Your task to perform on an android device: uninstall "Google Calendar" Image 0: 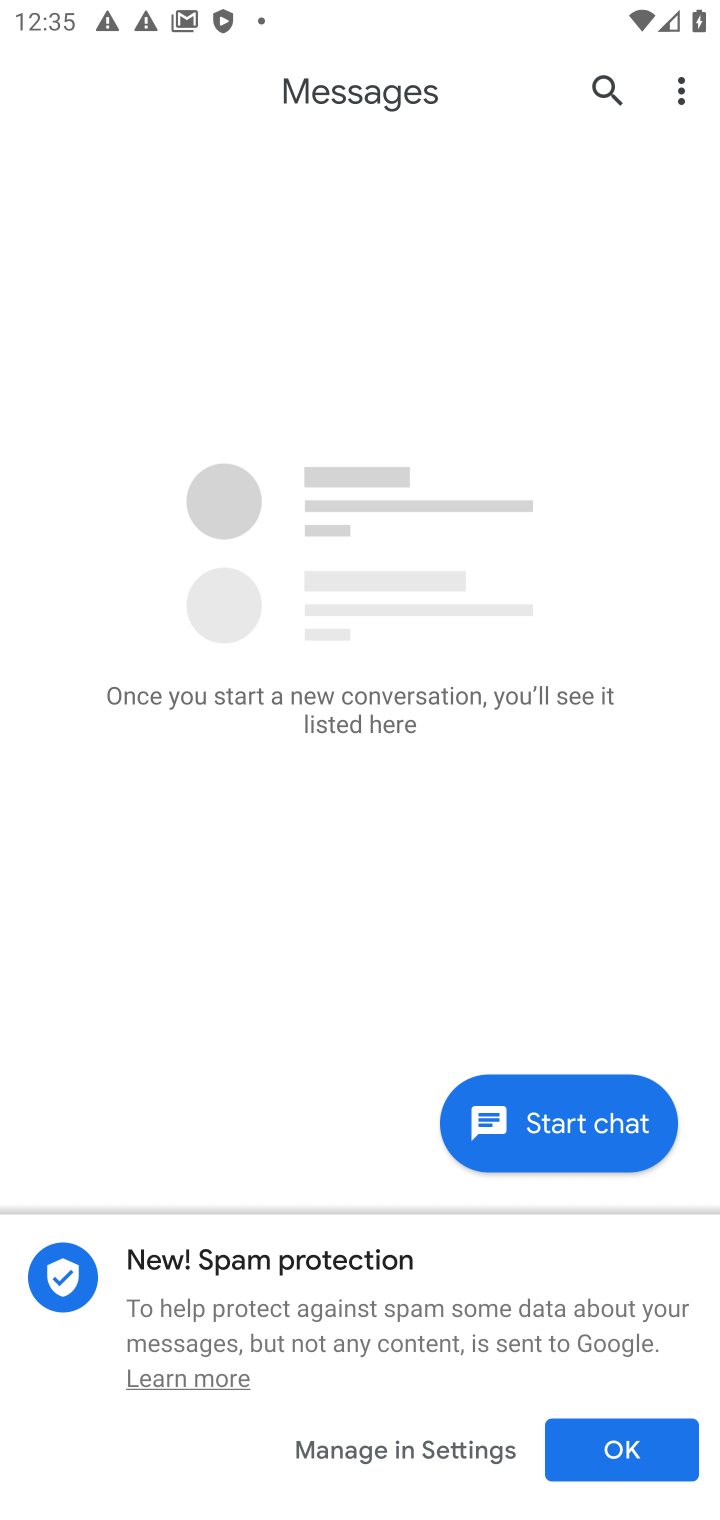
Step 0: press home button
Your task to perform on an android device: uninstall "Google Calendar" Image 1: 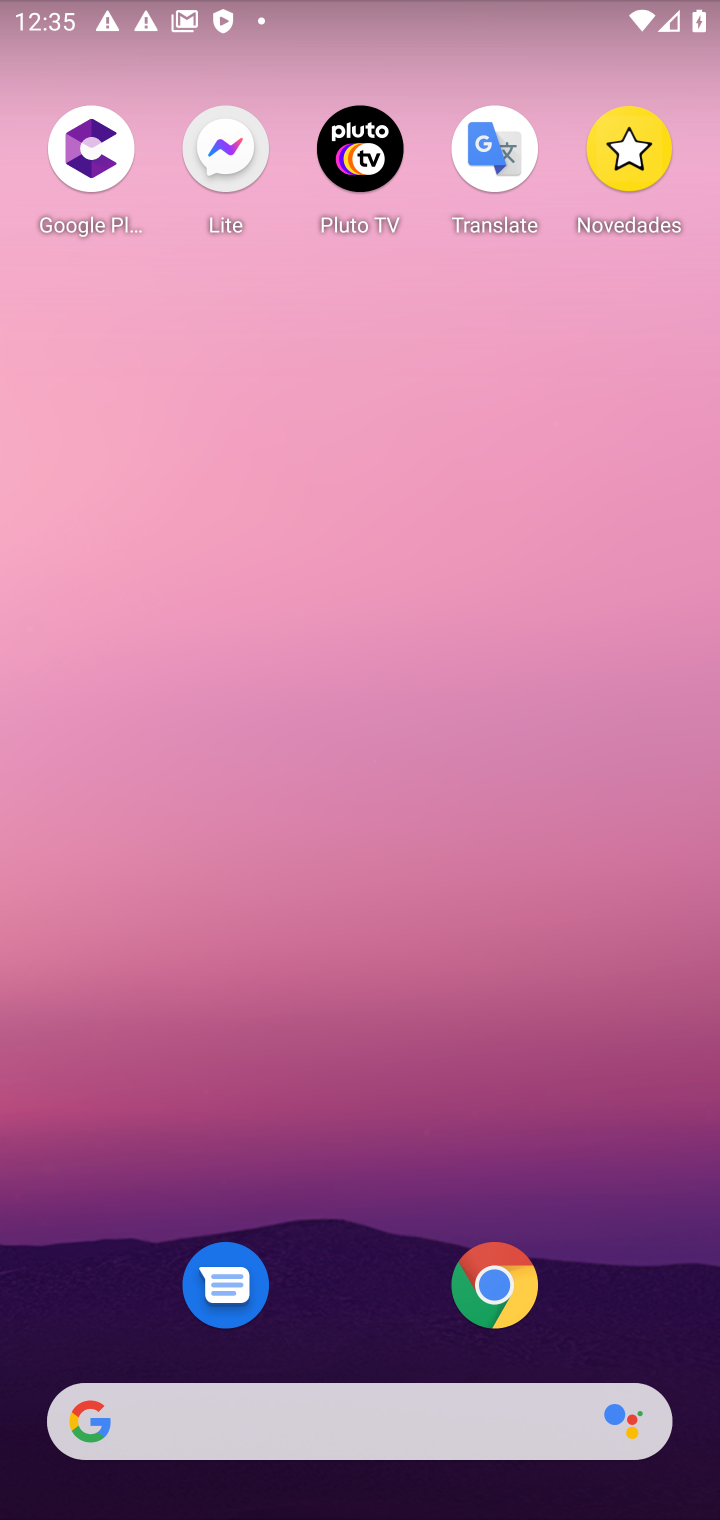
Step 1: drag from (649, 1240) to (604, 391)
Your task to perform on an android device: uninstall "Google Calendar" Image 2: 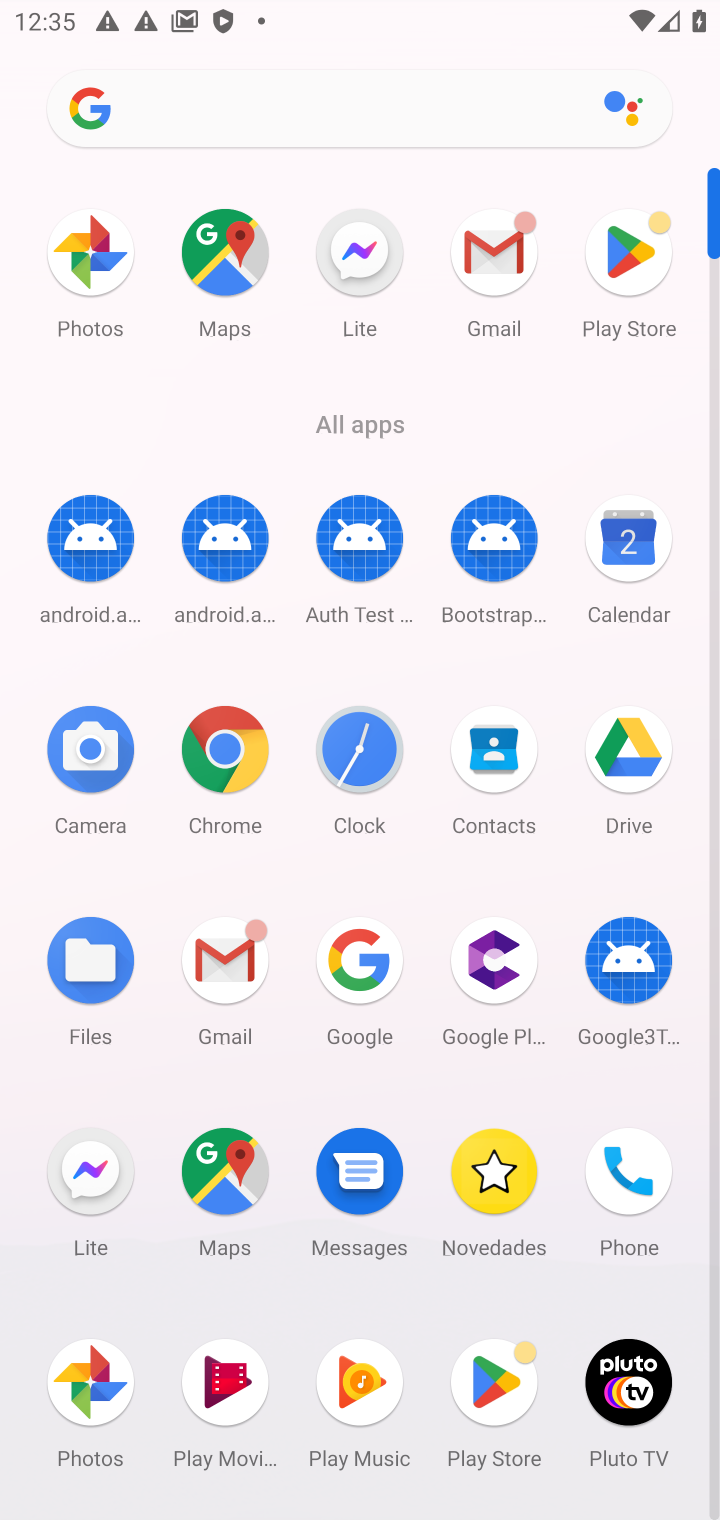
Step 2: click (480, 1367)
Your task to perform on an android device: uninstall "Google Calendar" Image 3: 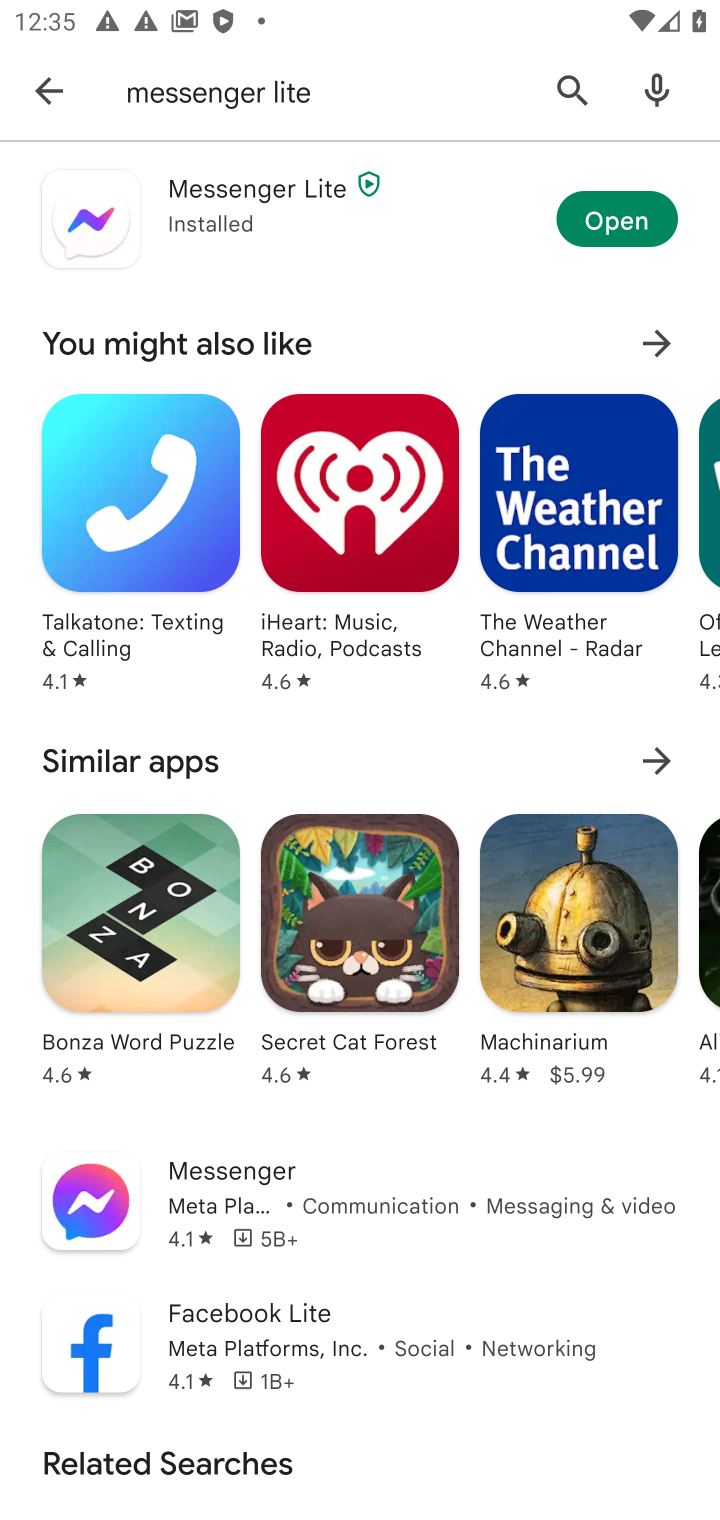
Step 3: click (415, 138)
Your task to perform on an android device: uninstall "Google Calendar" Image 4: 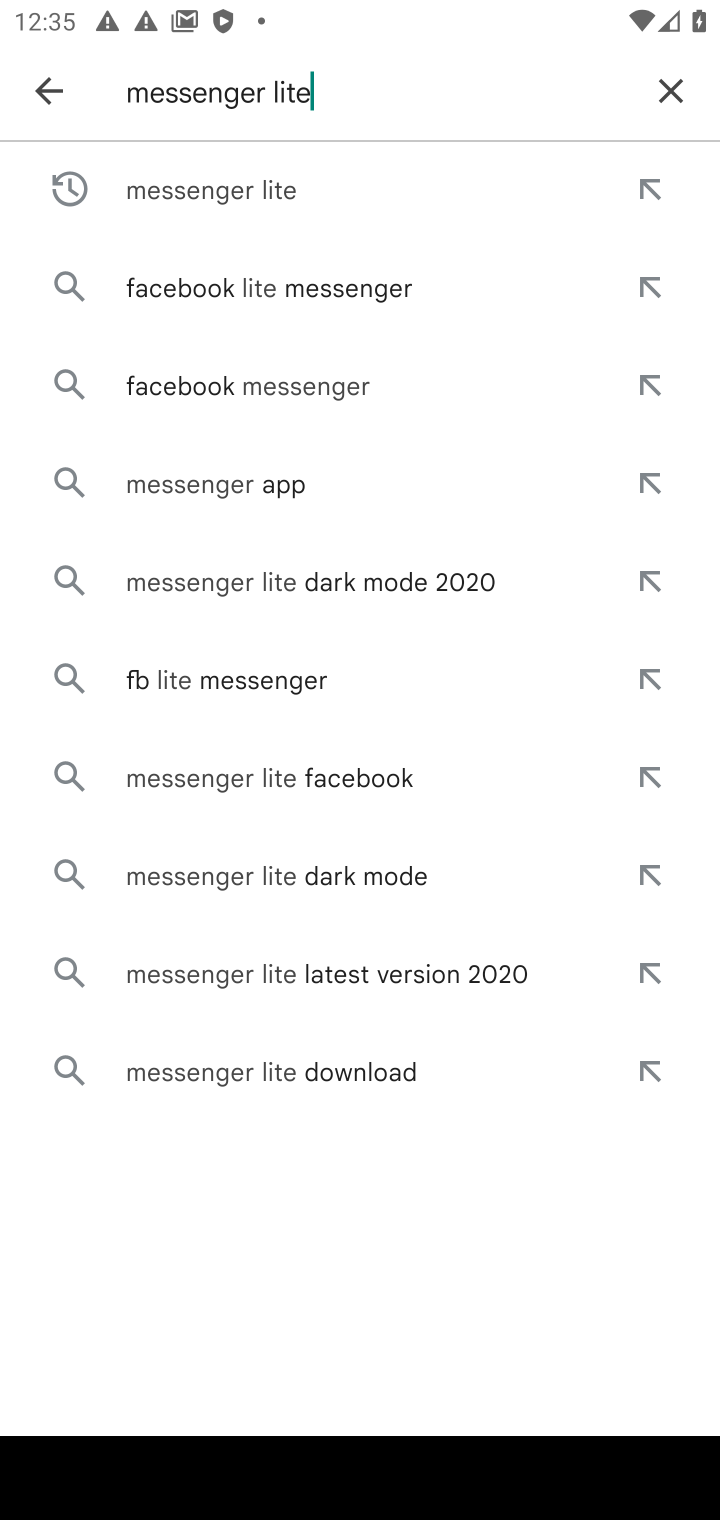
Step 4: click (678, 90)
Your task to perform on an android device: uninstall "Google Calendar" Image 5: 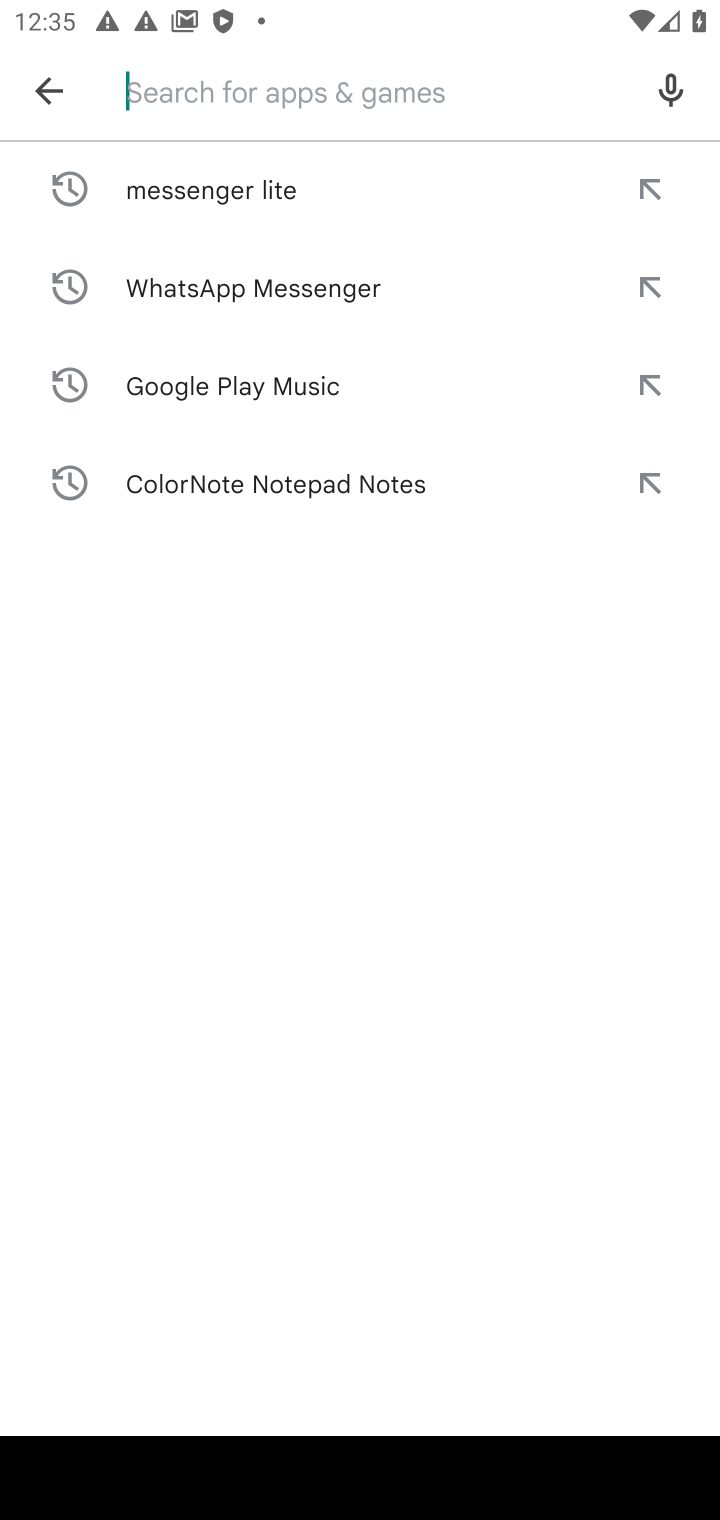
Step 5: type "Google Calendar"
Your task to perform on an android device: uninstall "Google Calendar" Image 6: 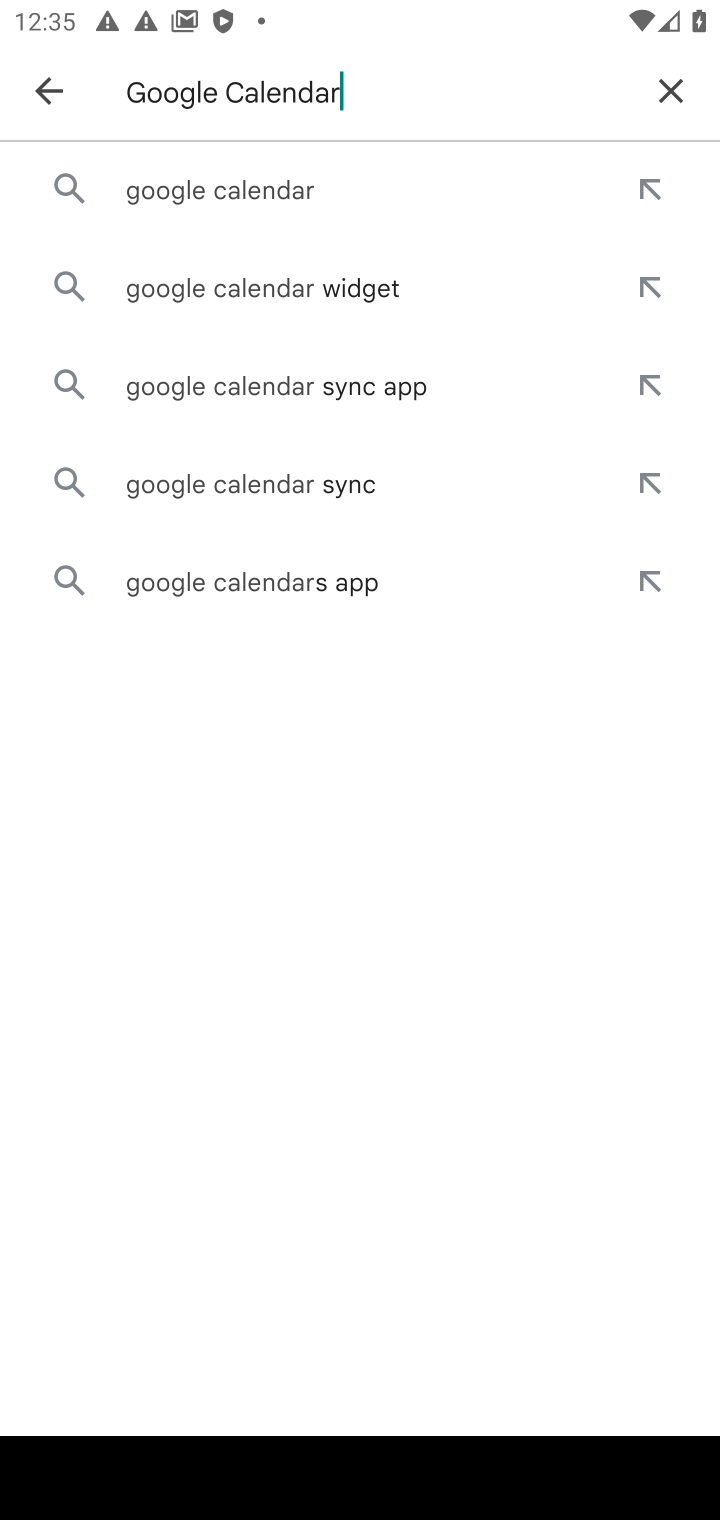
Step 6: press enter
Your task to perform on an android device: uninstall "Google Calendar" Image 7: 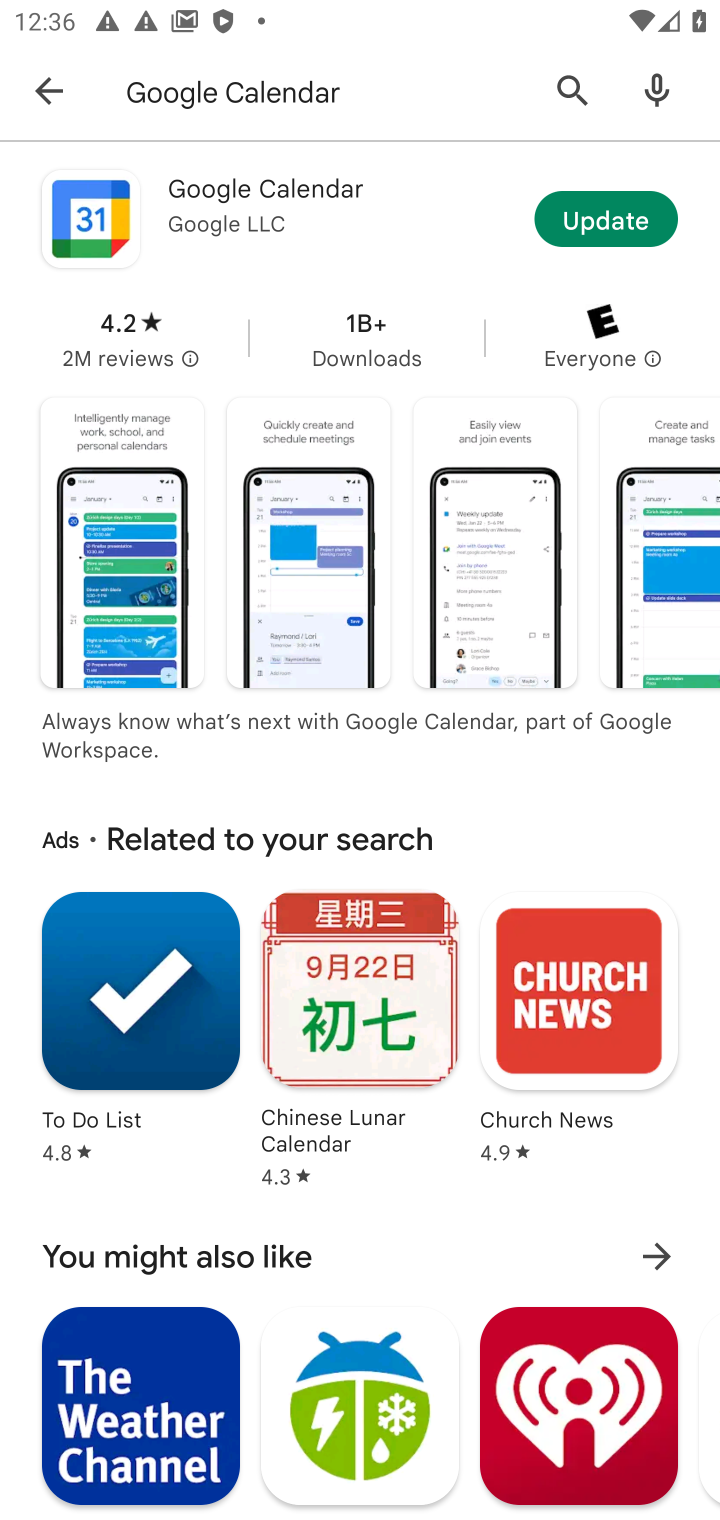
Step 7: click (235, 202)
Your task to perform on an android device: uninstall "Google Calendar" Image 8: 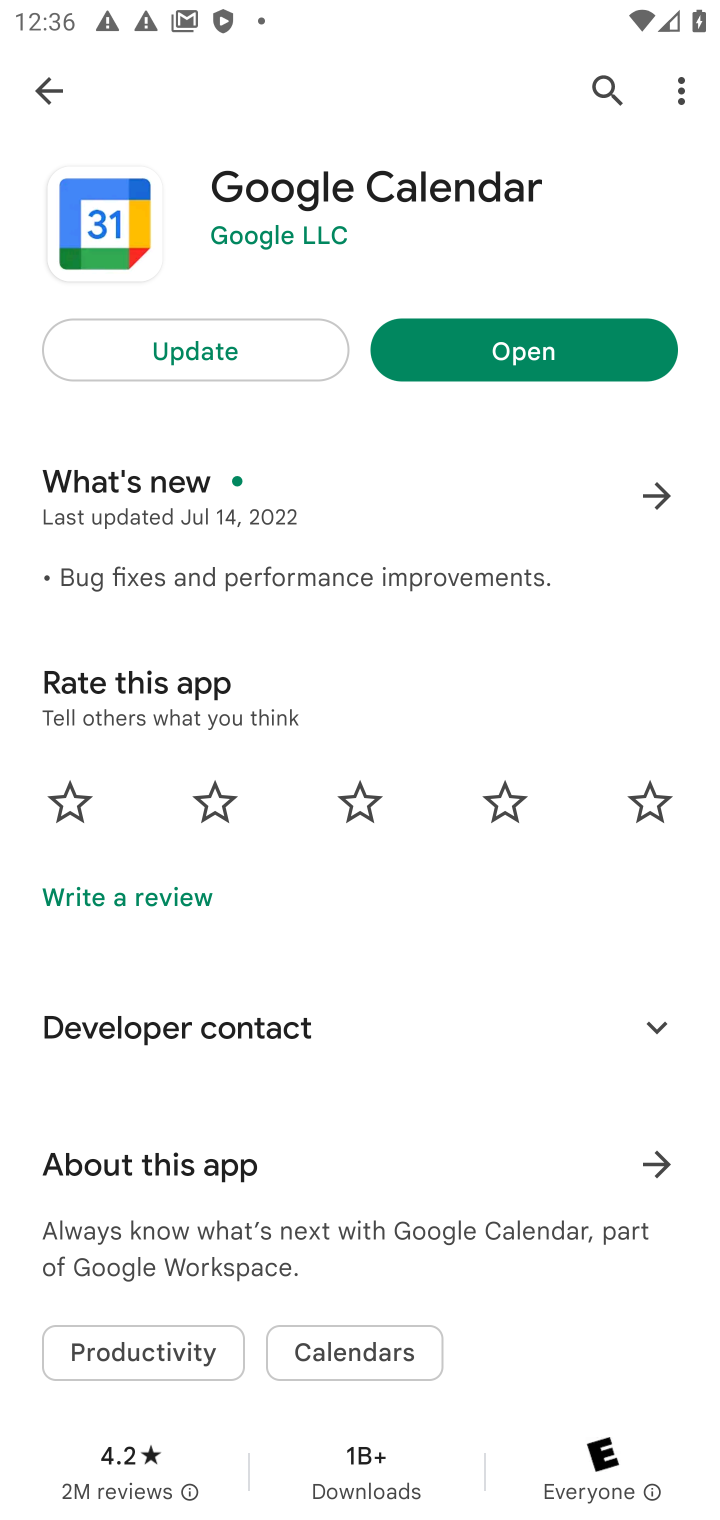
Step 8: task complete